Your task to perform on an android device: toggle data saver in the chrome app Image 0: 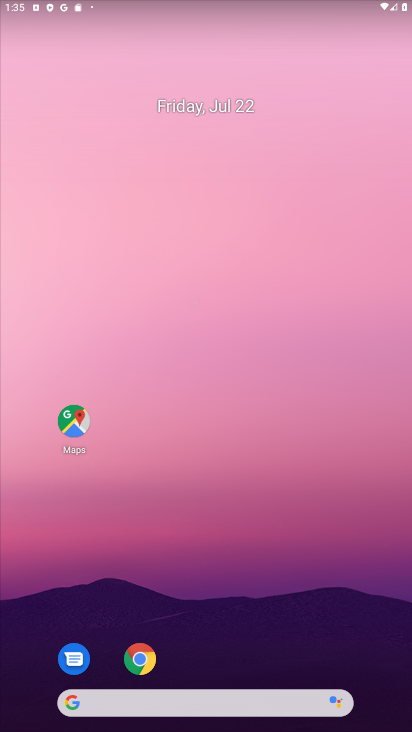
Step 0: click (149, 670)
Your task to perform on an android device: toggle data saver in the chrome app Image 1: 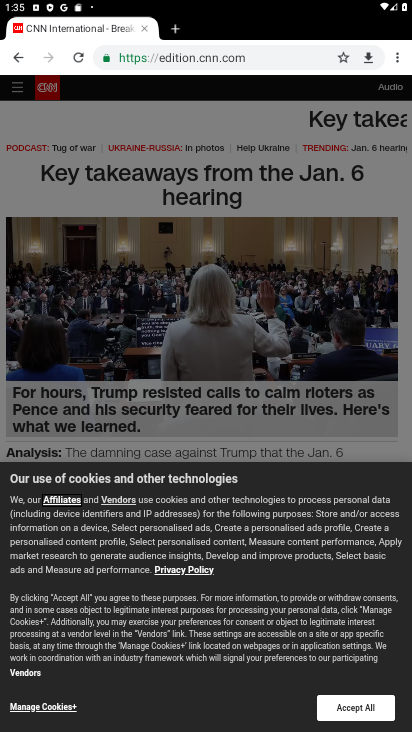
Step 1: click (392, 59)
Your task to perform on an android device: toggle data saver in the chrome app Image 2: 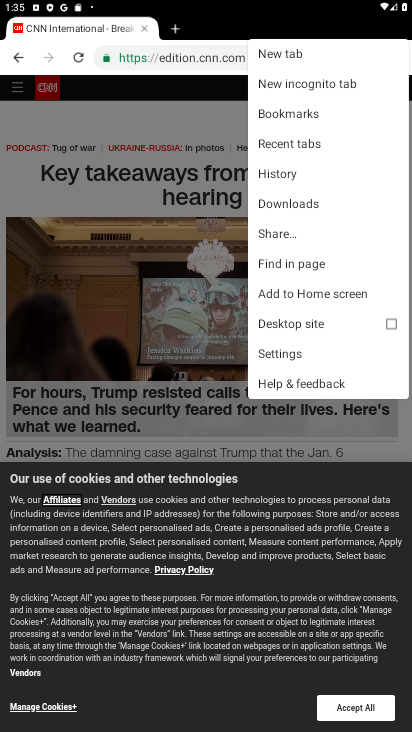
Step 2: click (280, 347)
Your task to perform on an android device: toggle data saver in the chrome app Image 3: 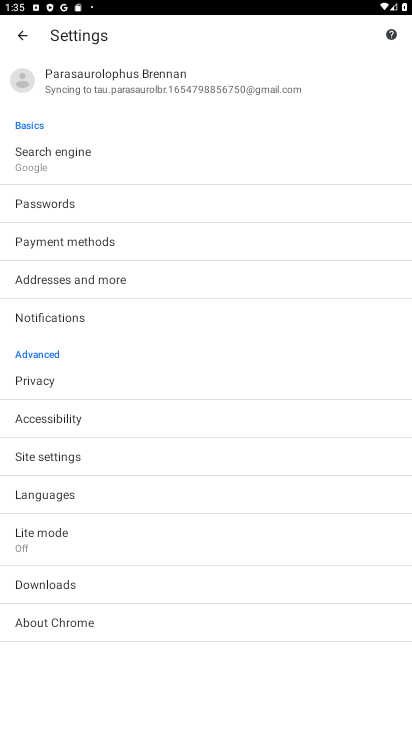
Step 3: click (46, 535)
Your task to perform on an android device: toggle data saver in the chrome app Image 4: 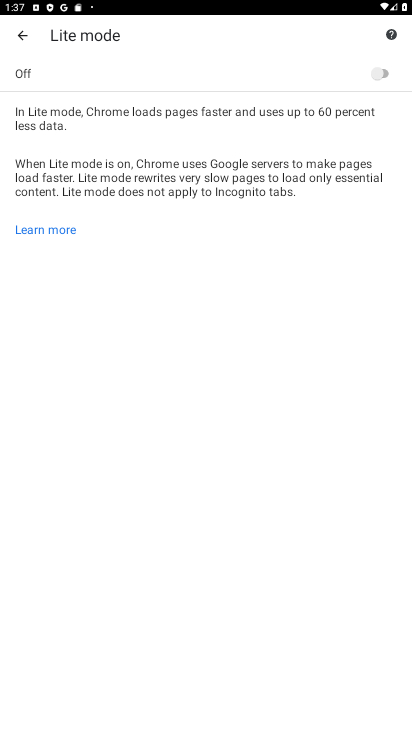
Step 4: task complete